Your task to perform on an android device: Play the last video I watched on Youtube Image 0: 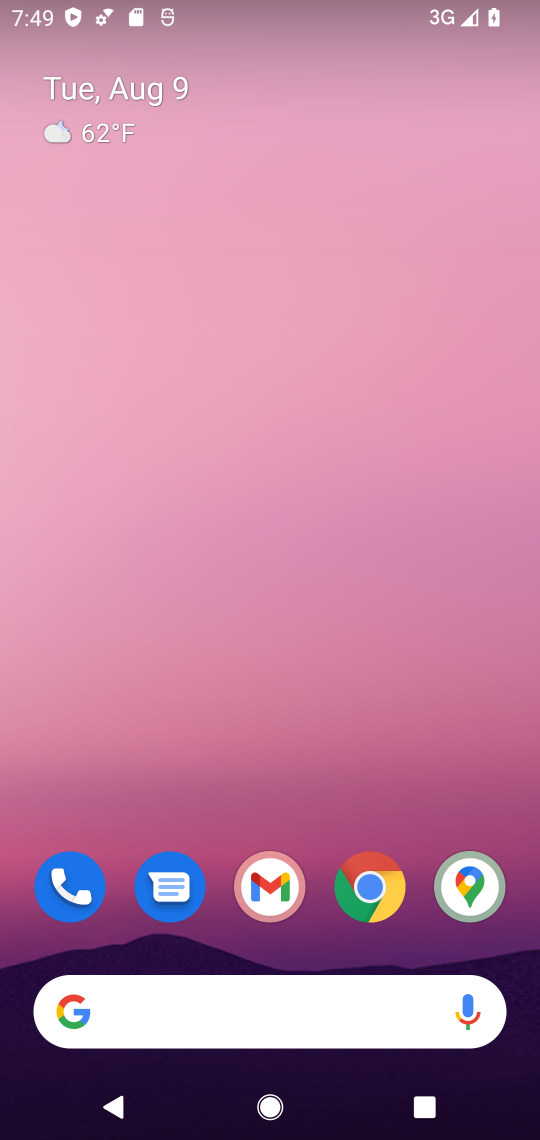
Step 0: drag from (261, 766) to (277, 2)
Your task to perform on an android device: Play the last video I watched on Youtube Image 1: 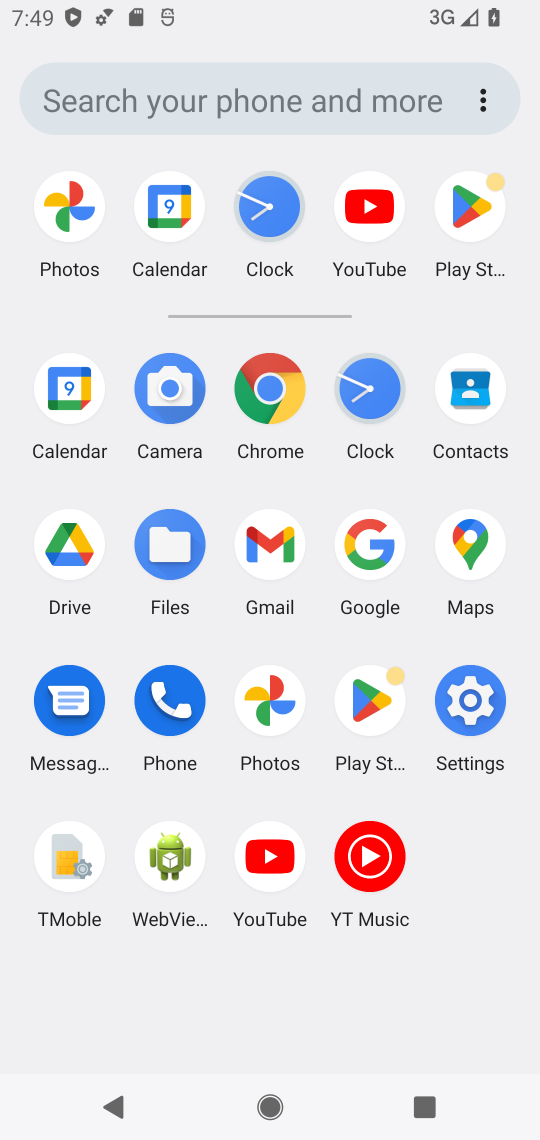
Step 1: click (273, 850)
Your task to perform on an android device: Play the last video I watched on Youtube Image 2: 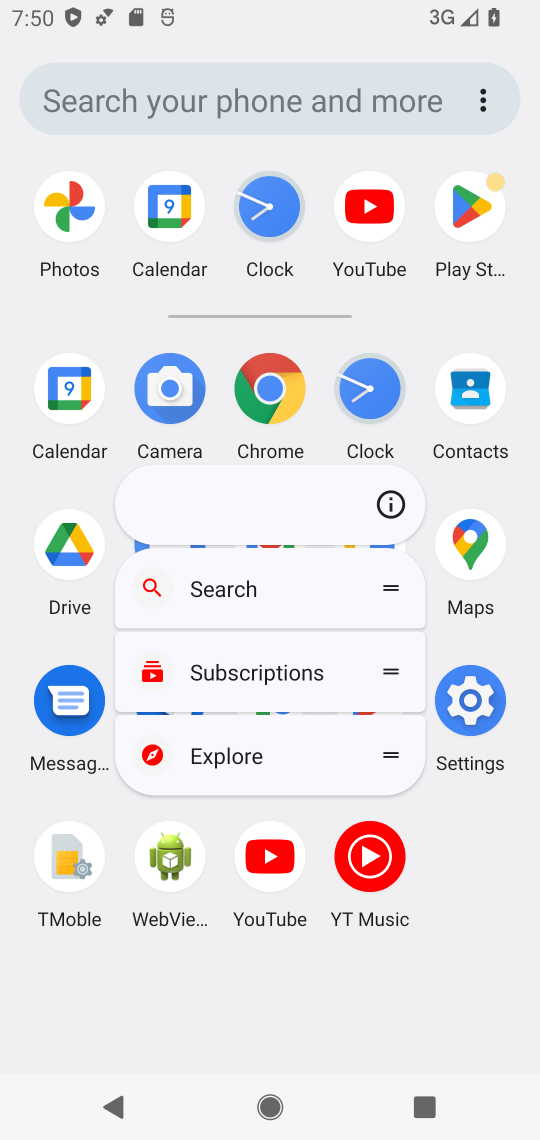
Step 2: click (273, 850)
Your task to perform on an android device: Play the last video I watched on Youtube Image 3: 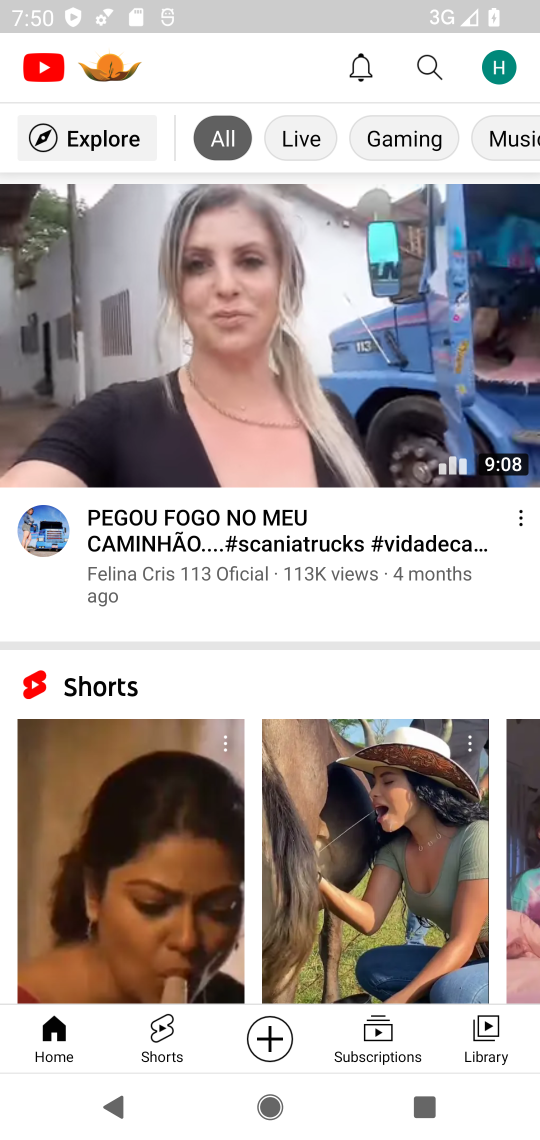
Step 3: click (487, 1024)
Your task to perform on an android device: Play the last video I watched on Youtube Image 4: 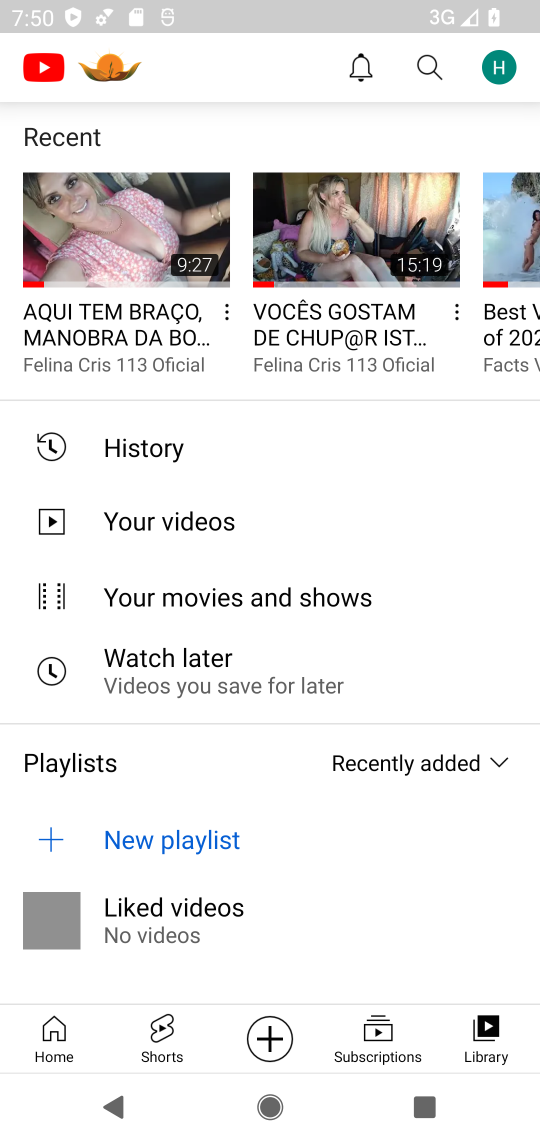
Step 4: click (132, 214)
Your task to perform on an android device: Play the last video I watched on Youtube Image 5: 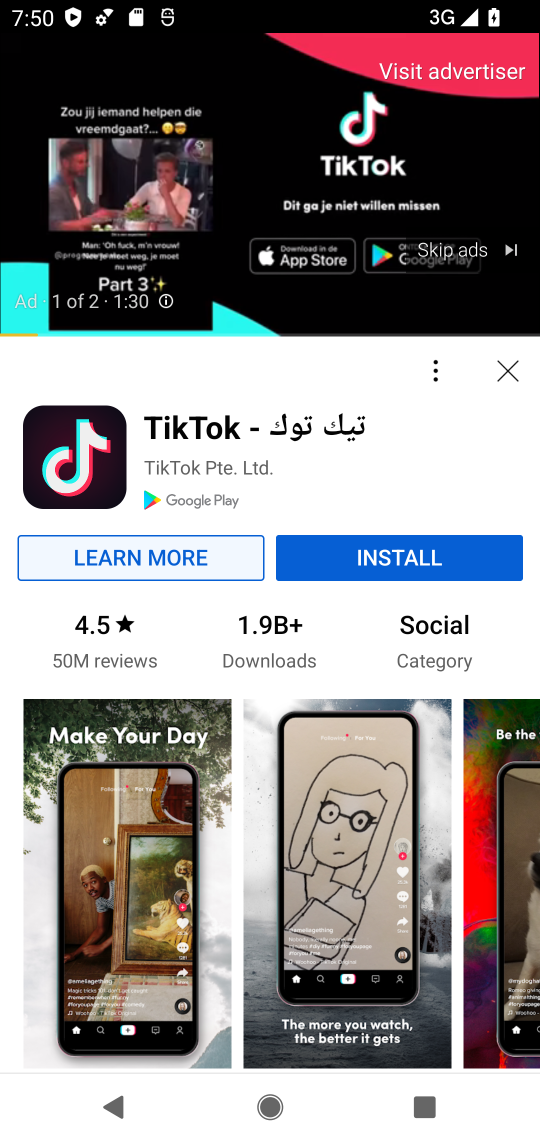
Step 5: click (463, 260)
Your task to perform on an android device: Play the last video I watched on Youtube Image 6: 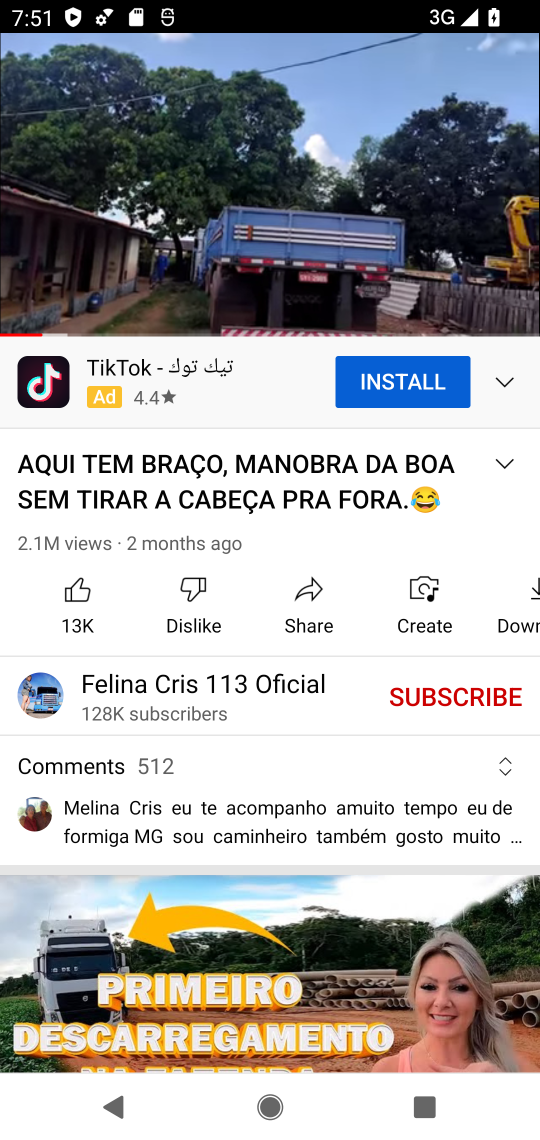
Step 6: task complete